Your task to perform on an android device: Go to wifi settings Image 0: 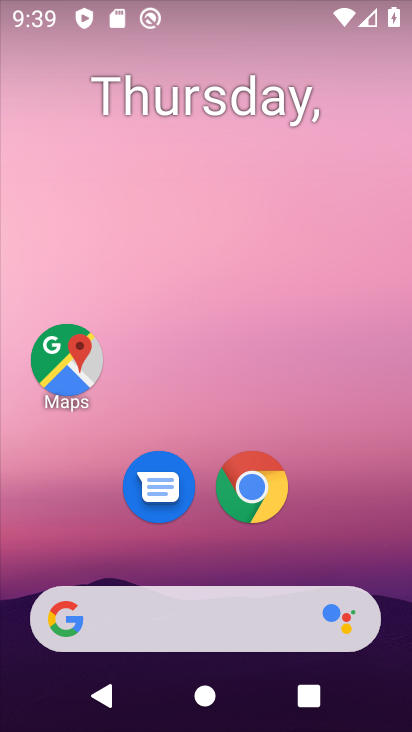
Step 0: drag from (316, 532) to (126, 114)
Your task to perform on an android device: Go to wifi settings Image 1: 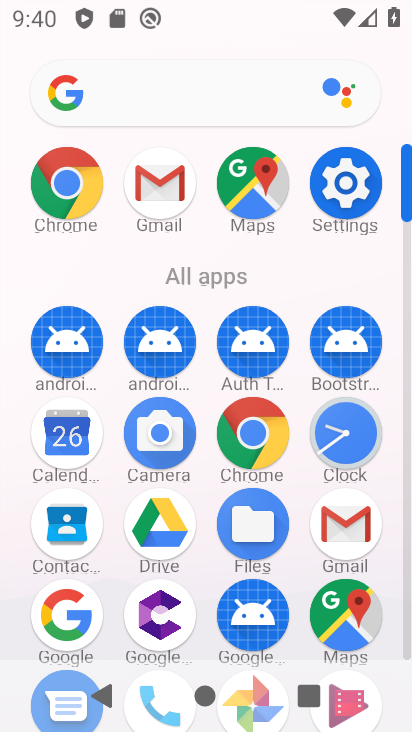
Step 1: click (349, 195)
Your task to perform on an android device: Go to wifi settings Image 2: 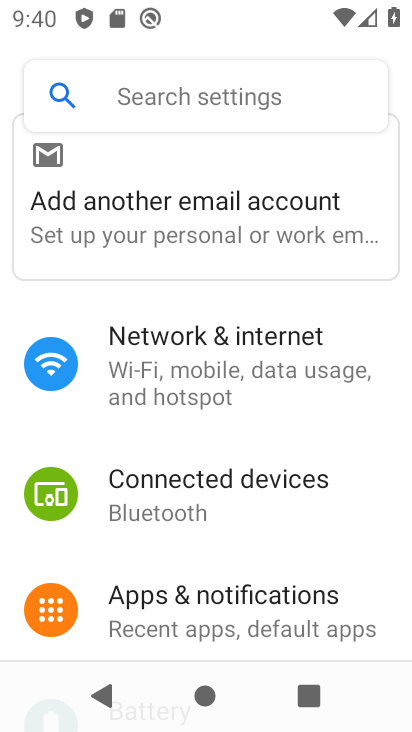
Step 2: click (267, 358)
Your task to perform on an android device: Go to wifi settings Image 3: 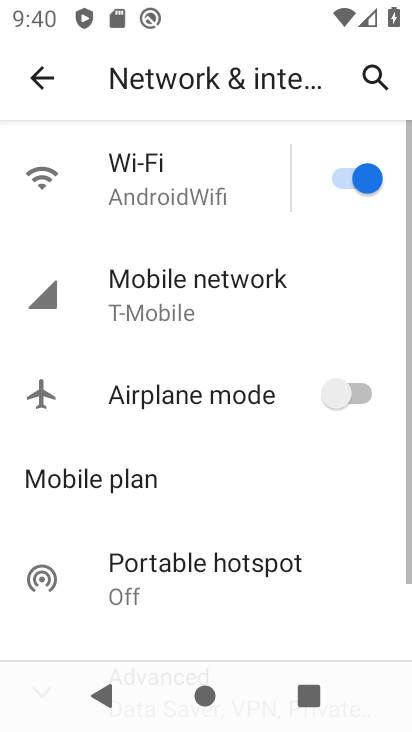
Step 3: click (179, 189)
Your task to perform on an android device: Go to wifi settings Image 4: 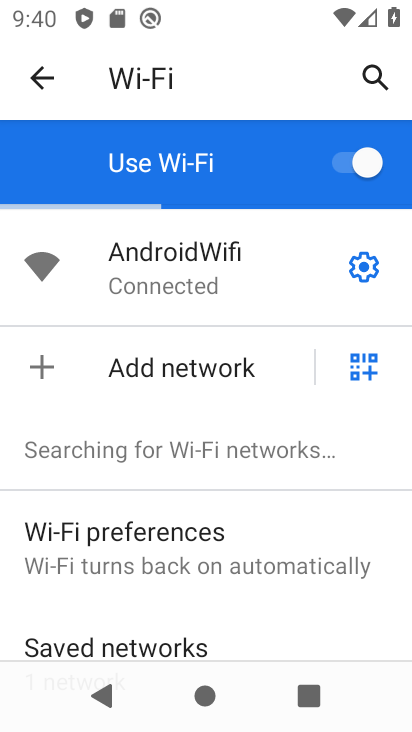
Step 4: task complete